Your task to perform on an android device: check the backup settings in the google photos Image 0: 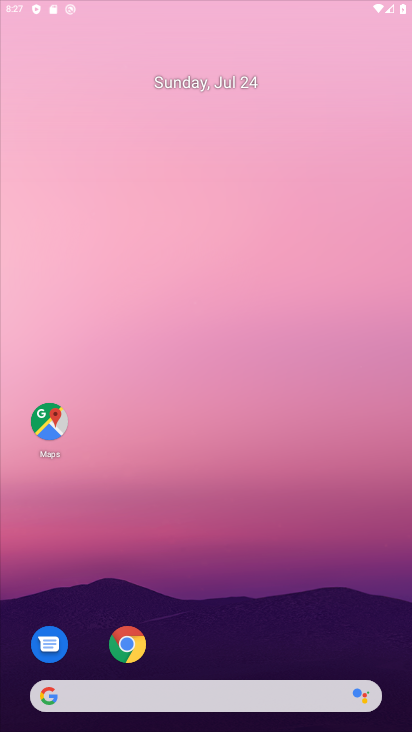
Step 0: drag from (302, 621) to (344, 107)
Your task to perform on an android device: check the backup settings in the google photos Image 1: 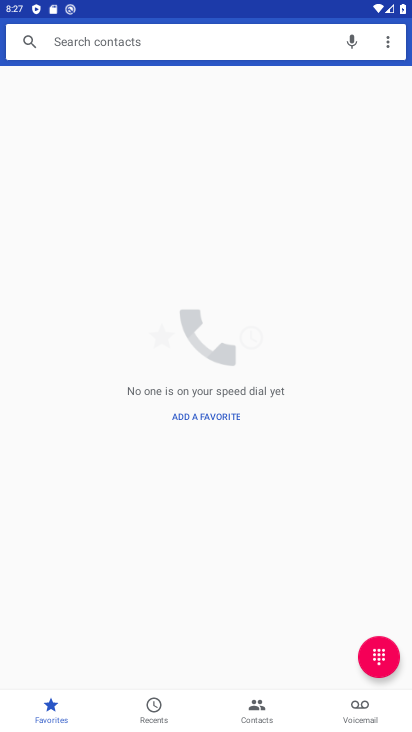
Step 1: press home button
Your task to perform on an android device: check the backup settings in the google photos Image 2: 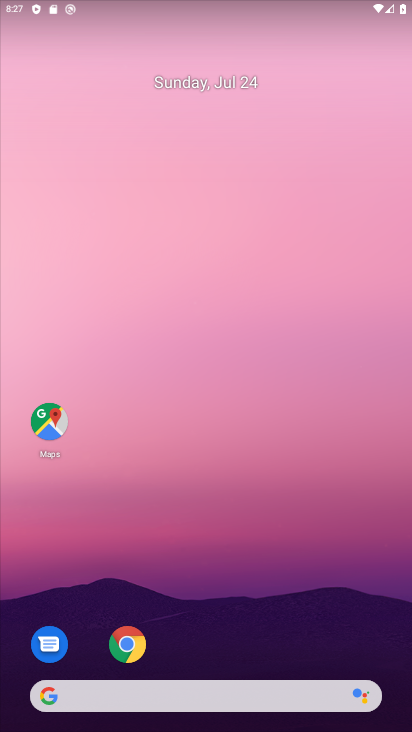
Step 2: drag from (266, 613) to (332, 79)
Your task to perform on an android device: check the backup settings in the google photos Image 3: 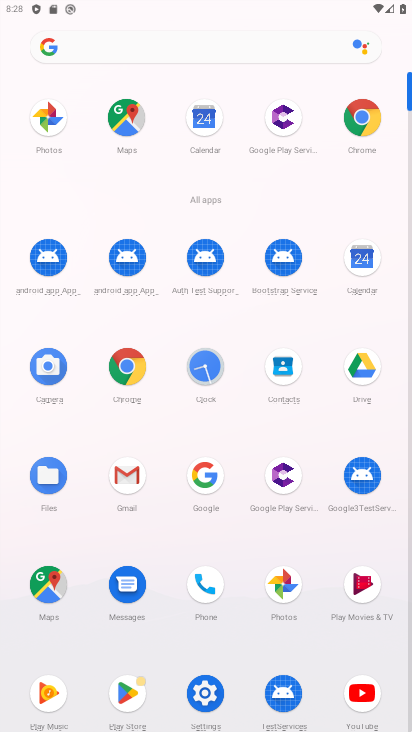
Step 3: click (285, 581)
Your task to perform on an android device: check the backup settings in the google photos Image 4: 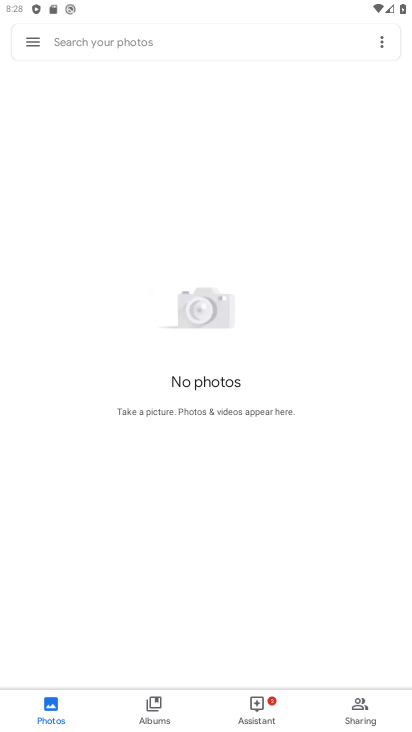
Step 4: click (40, 39)
Your task to perform on an android device: check the backup settings in the google photos Image 5: 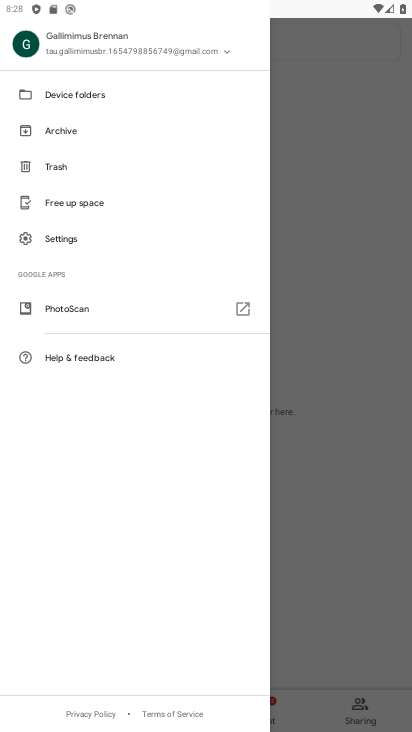
Step 5: click (362, 128)
Your task to perform on an android device: check the backup settings in the google photos Image 6: 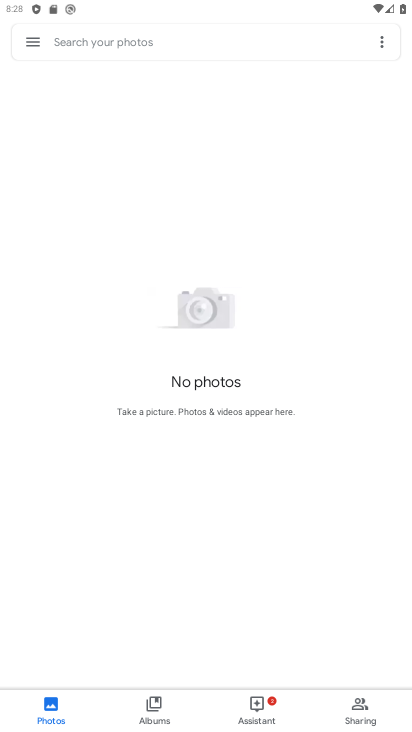
Step 6: click (380, 32)
Your task to perform on an android device: check the backup settings in the google photos Image 7: 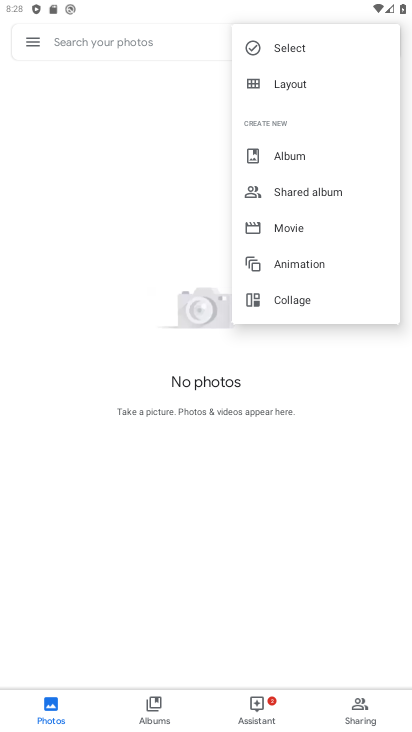
Step 7: click (75, 206)
Your task to perform on an android device: check the backup settings in the google photos Image 8: 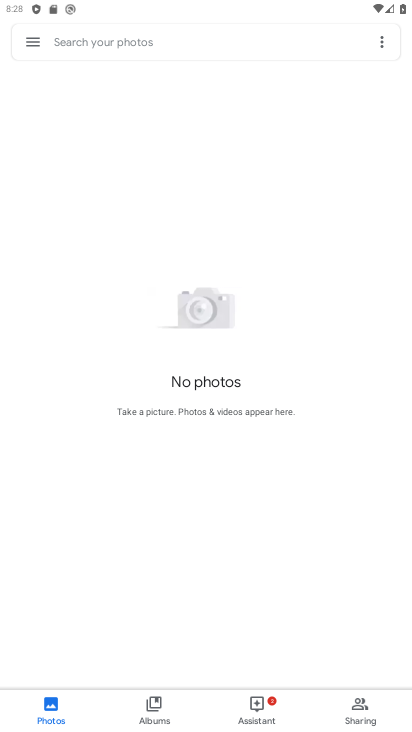
Step 8: click (25, 39)
Your task to perform on an android device: check the backup settings in the google photos Image 9: 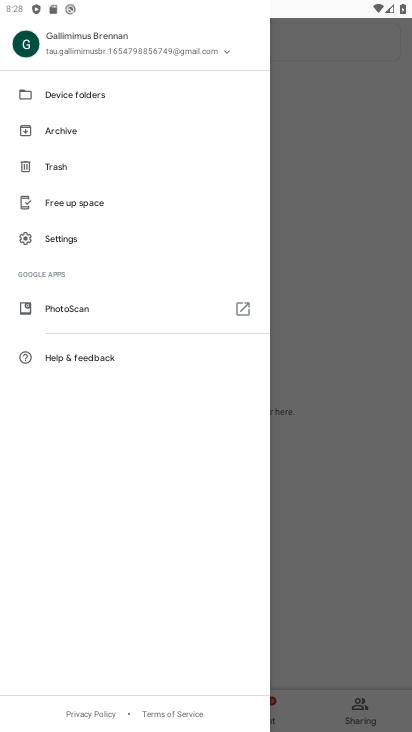
Step 9: click (74, 247)
Your task to perform on an android device: check the backup settings in the google photos Image 10: 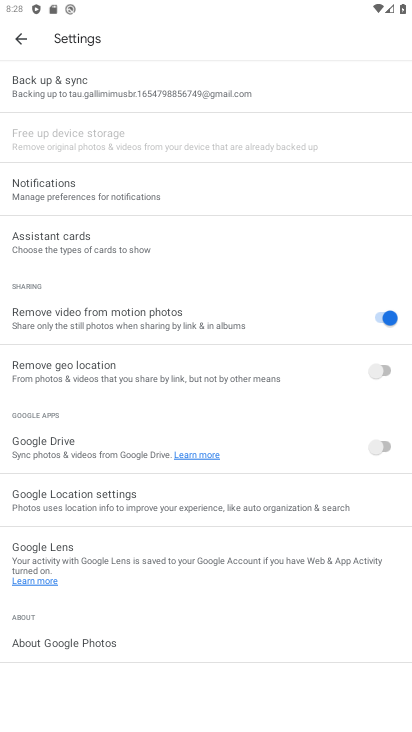
Step 10: click (58, 92)
Your task to perform on an android device: check the backup settings in the google photos Image 11: 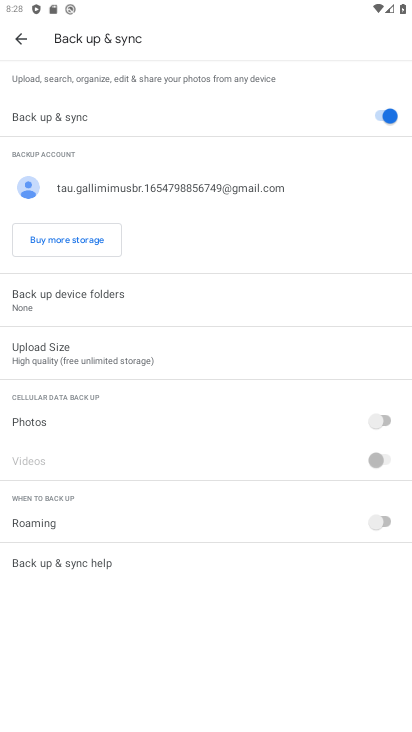
Step 11: task complete